Your task to perform on an android device: find photos in the google photos app Image 0: 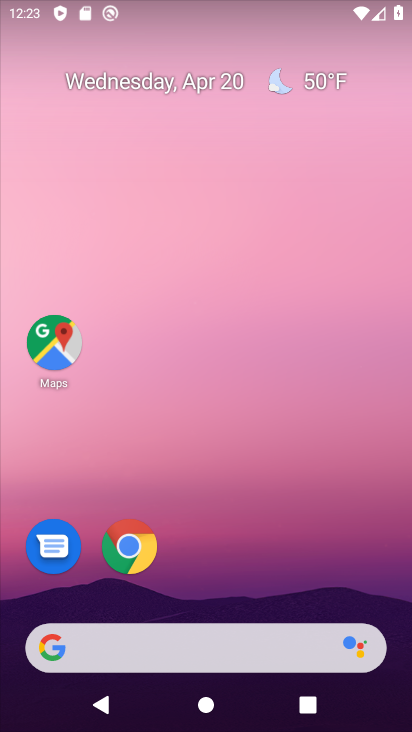
Step 0: drag from (241, 480) to (337, 14)
Your task to perform on an android device: find photos in the google photos app Image 1: 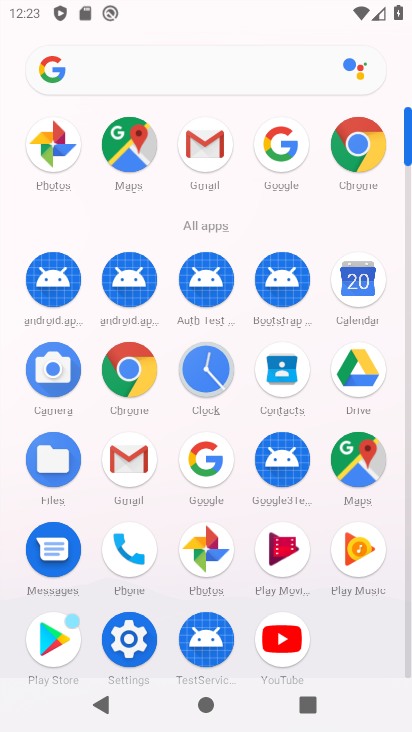
Step 1: click (212, 552)
Your task to perform on an android device: find photos in the google photos app Image 2: 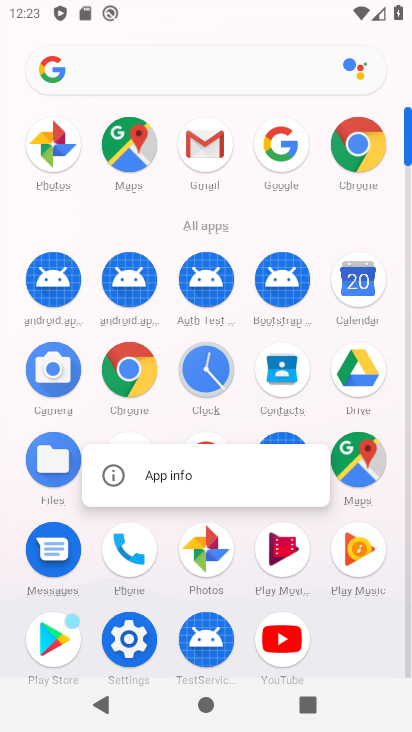
Step 2: click (212, 552)
Your task to perform on an android device: find photos in the google photos app Image 3: 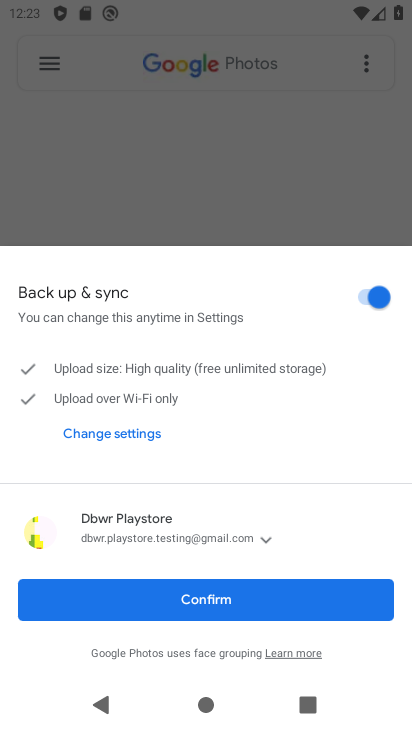
Step 3: click (195, 606)
Your task to perform on an android device: find photos in the google photos app Image 4: 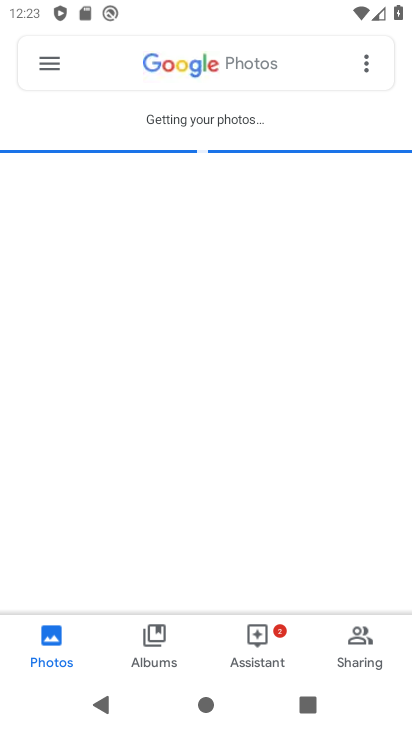
Step 4: click (49, 633)
Your task to perform on an android device: find photos in the google photos app Image 5: 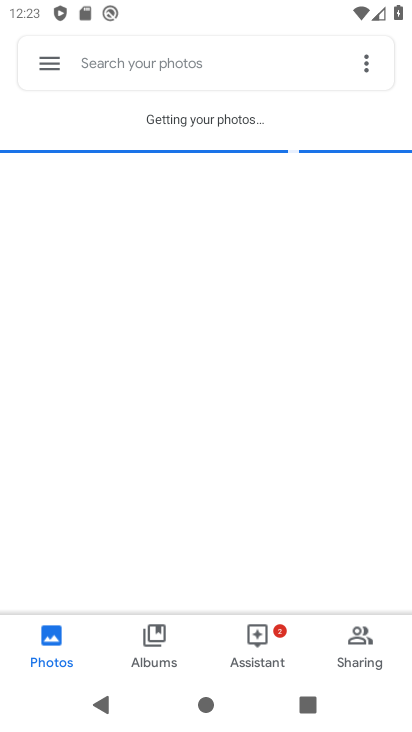
Step 5: task complete